Your task to perform on an android device: find which apps use the phone's location Image 0: 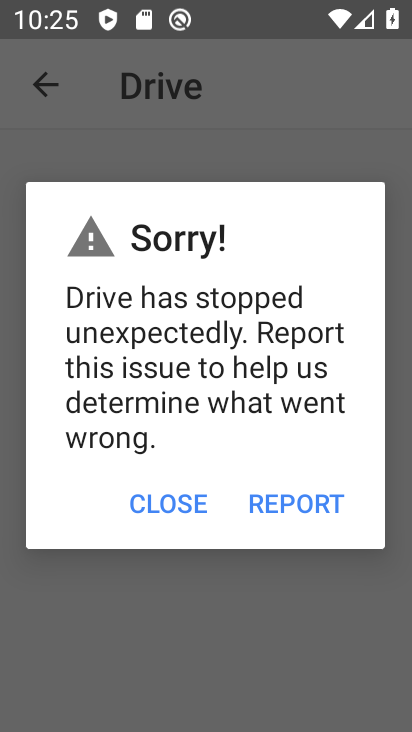
Step 0: press home button
Your task to perform on an android device: find which apps use the phone's location Image 1: 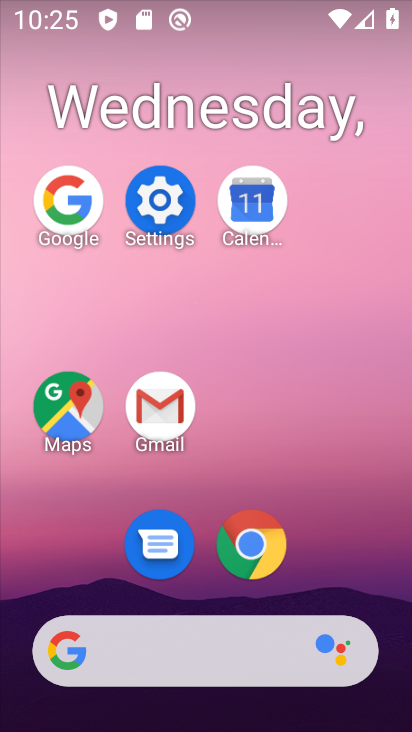
Step 1: click (179, 192)
Your task to perform on an android device: find which apps use the phone's location Image 2: 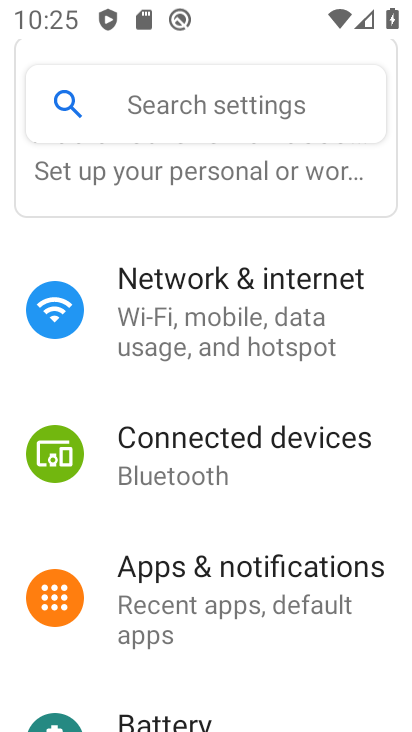
Step 2: drag from (286, 667) to (287, 192)
Your task to perform on an android device: find which apps use the phone's location Image 3: 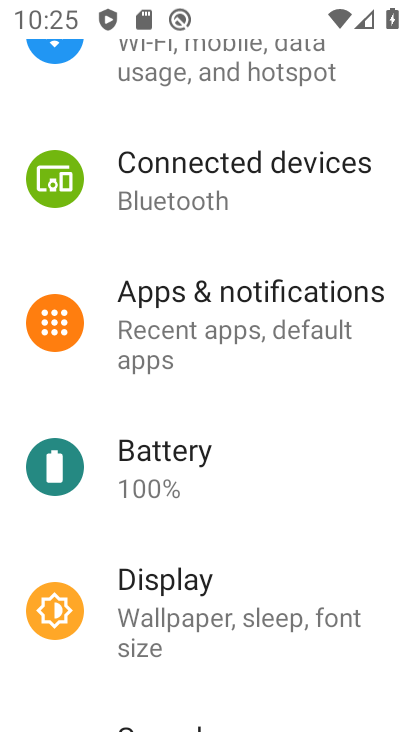
Step 3: drag from (295, 597) to (278, 261)
Your task to perform on an android device: find which apps use the phone's location Image 4: 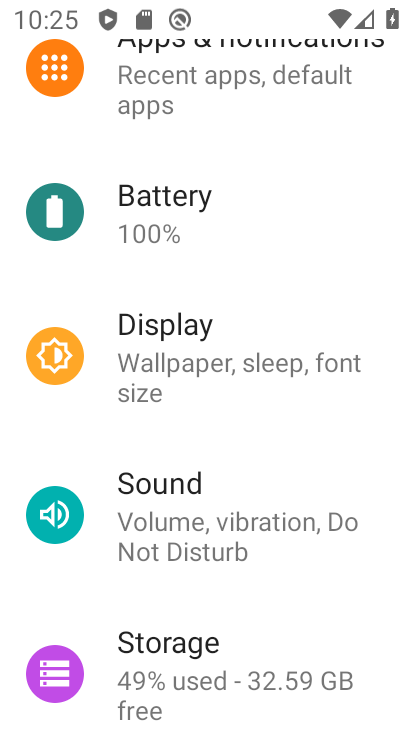
Step 4: drag from (271, 502) to (275, 139)
Your task to perform on an android device: find which apps use the phone's location Image 5: 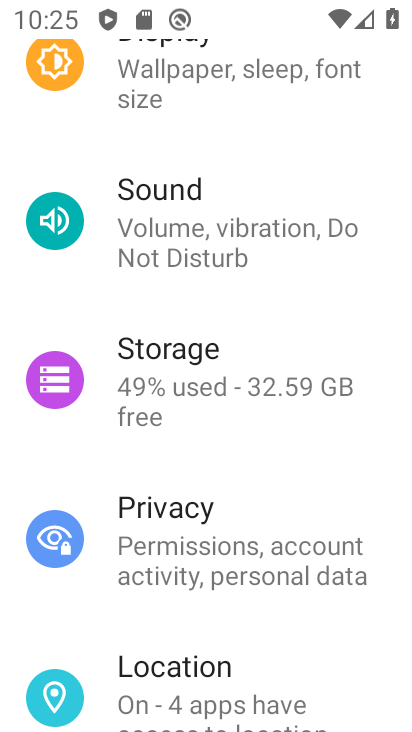
Step 5: click (271, 665)
Your task to perform on an android device: find which apps use the phone's location Image 6: 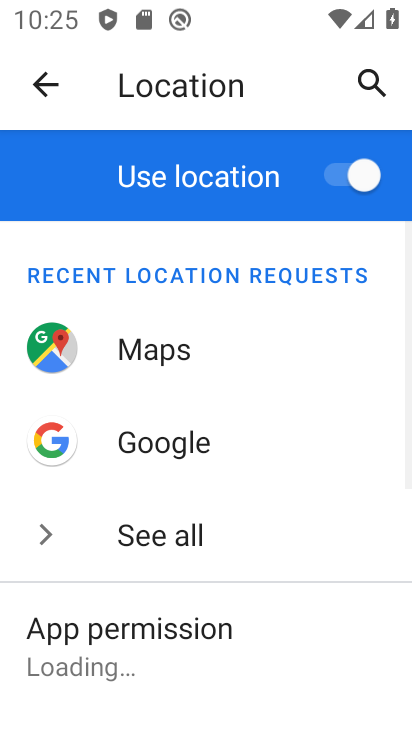
Step 6: task complete